Your task to perform on an android device: open app "Messages" Image 0: 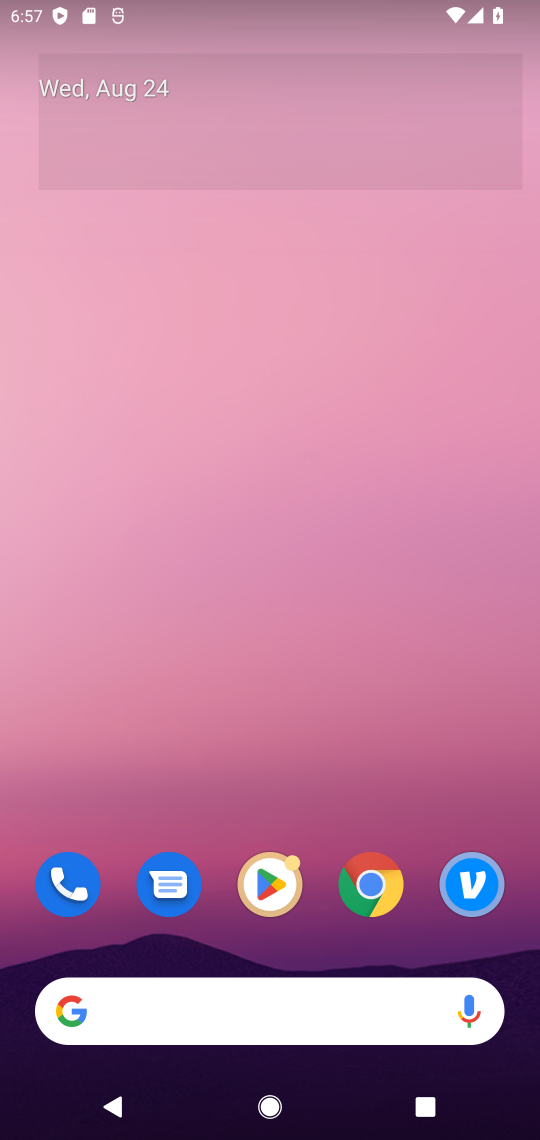
Step 0: click (264, 871)
Your task to perform on an android device: open app "Messages" Image 1: 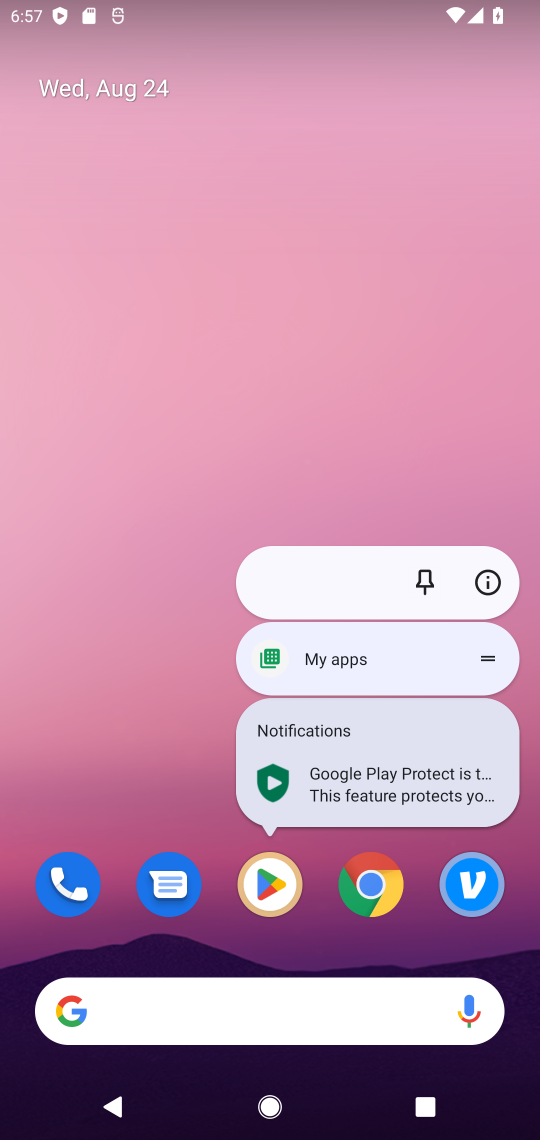
Step 1: click (278, 903)
Your task to perform on an android device: open app "Messages" Image 2: 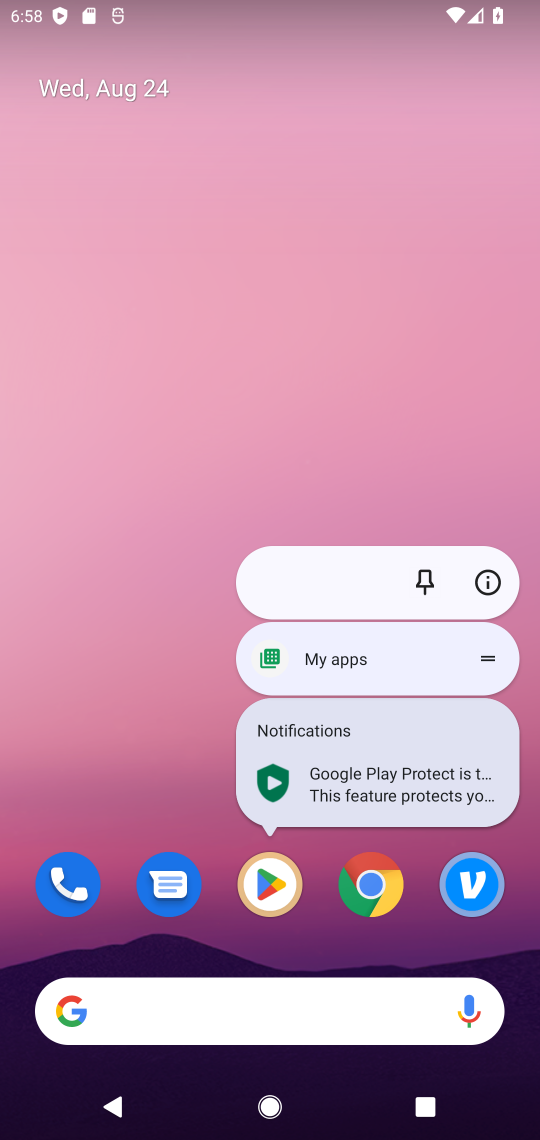
Step 2: click (274, 901)
Your task to perform on an android device: open app "Messages" Image 3: 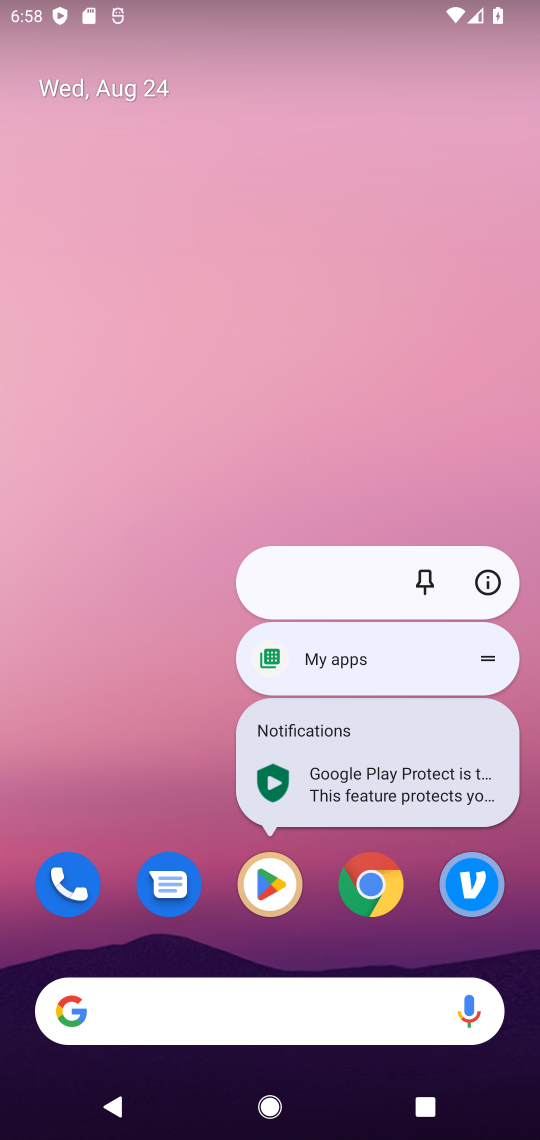
Step 3: click (261, 882)
Your task to perform on an android device: open app "Messages" Image 4: 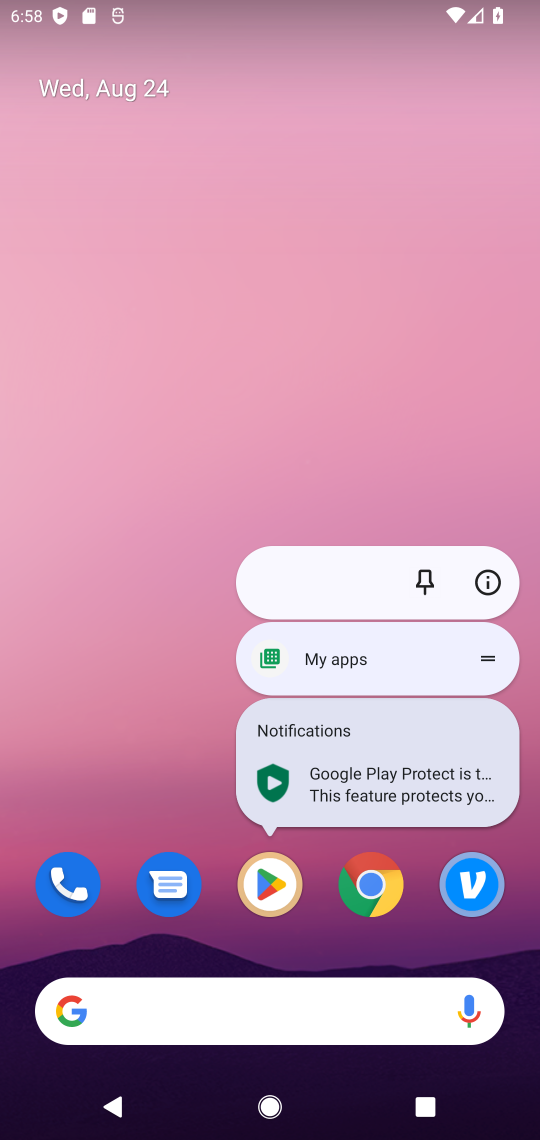
Step 4: click (261, 911)
Your task to perform on an android device: open app "Messages" Image 5: 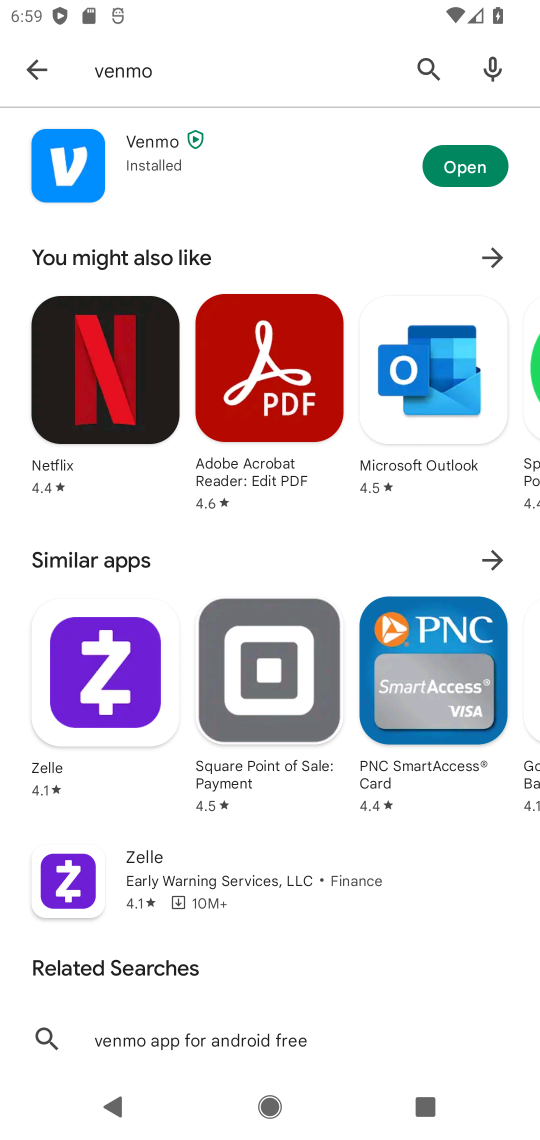
Step 5: click (424, 66)
Your task to perform on an android device: open app "Messages" Image 6: 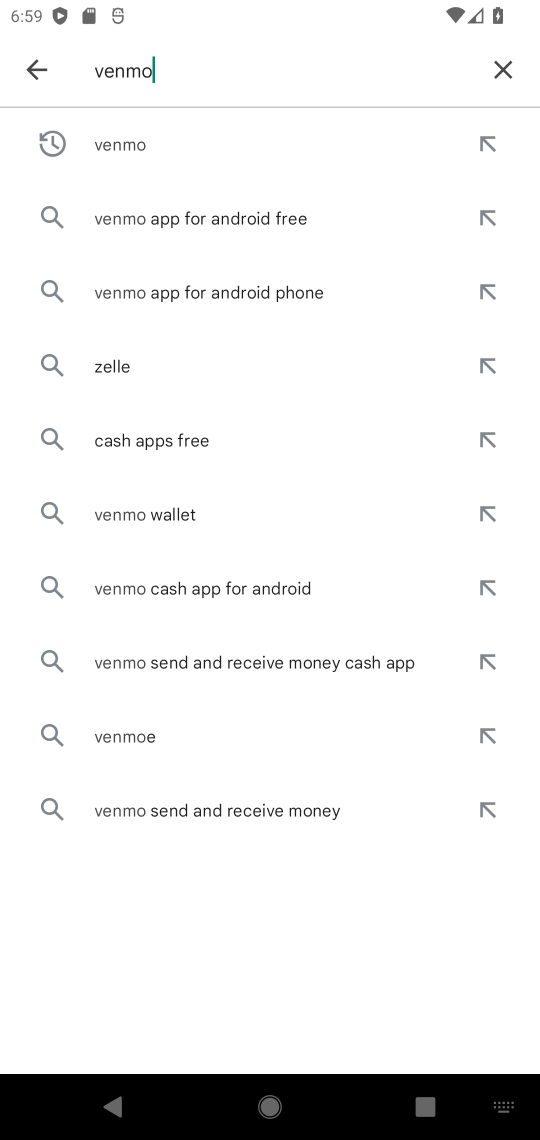
Step 6: click (492, 70)
Your task to perform on an android device: open app "Messages" Image 7: 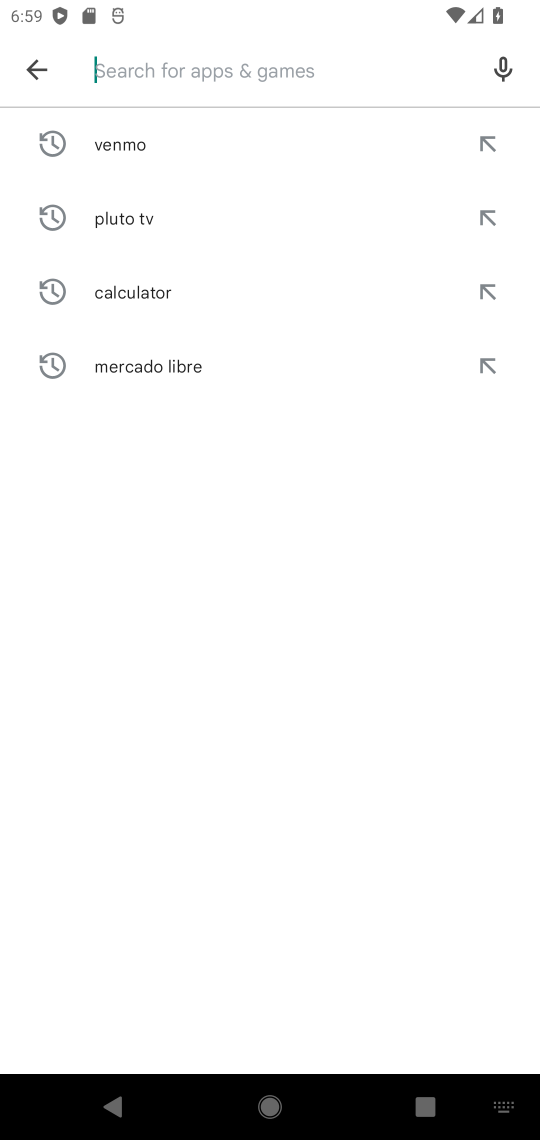
Step 7: type "messages"
Your task to perform on an android device: open app "Messages" Image 8: 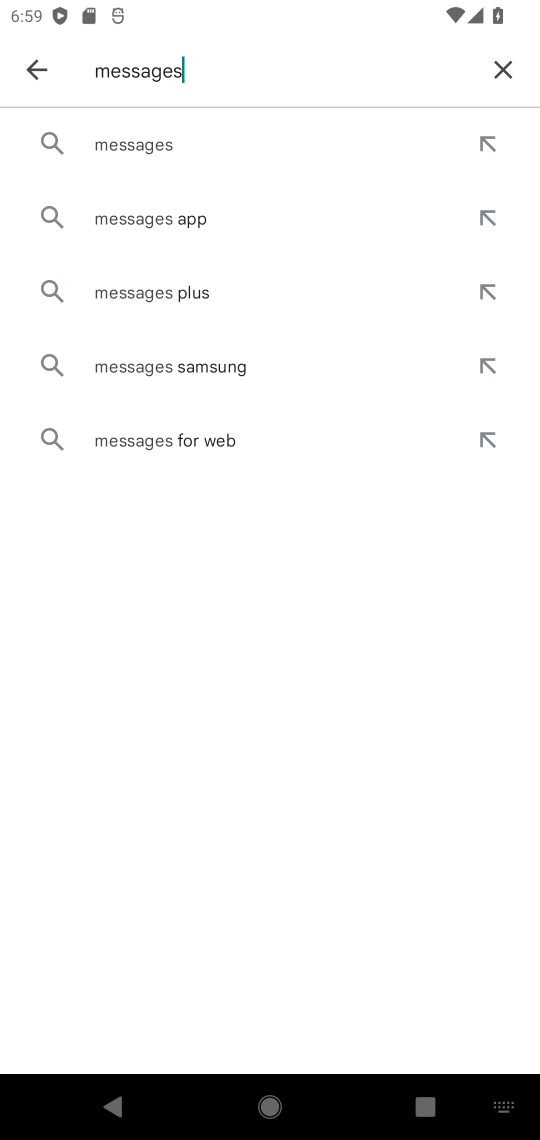
Step 8: click (185, 146)
Your task to perform on an android device: open app "Messages" Image 9: 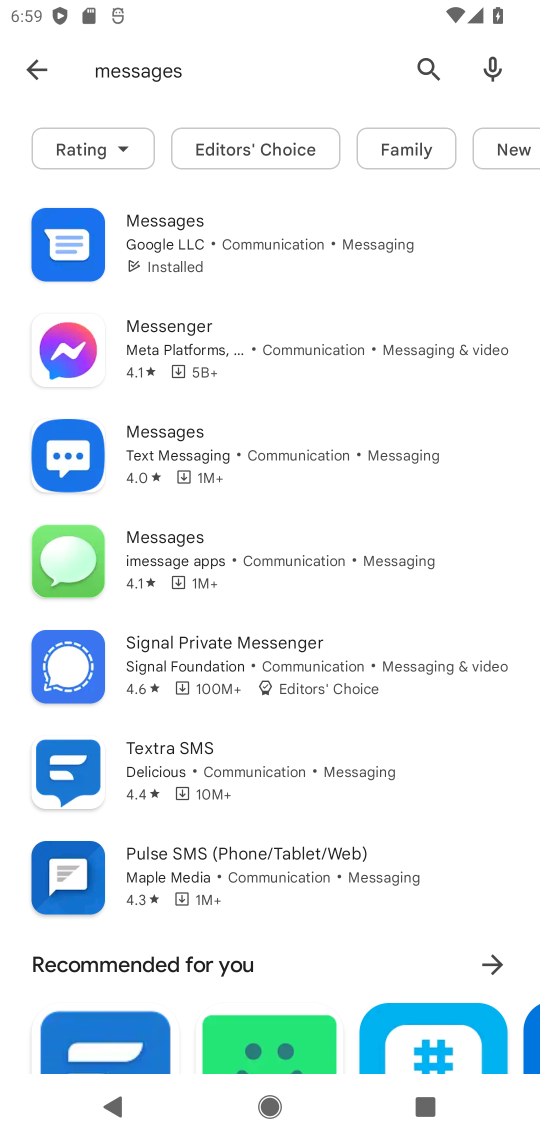
Step 9: click (315, 256)
Your task to perform on an android device: open app "Messages" Image 10: 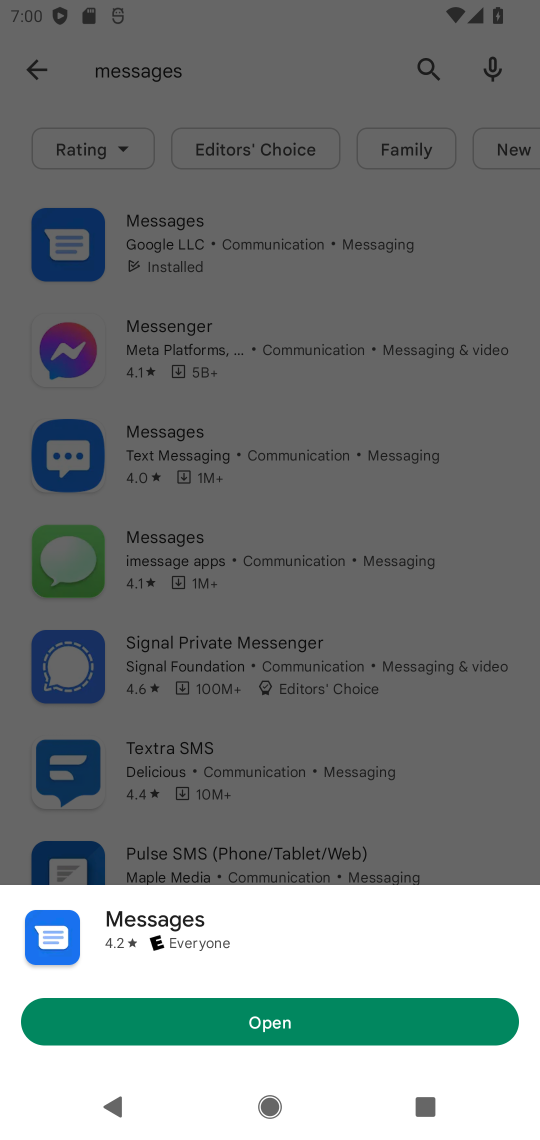
Step 10: click (296, 1037)
Your task to perform on an android device: open app "Messages" Image 11: 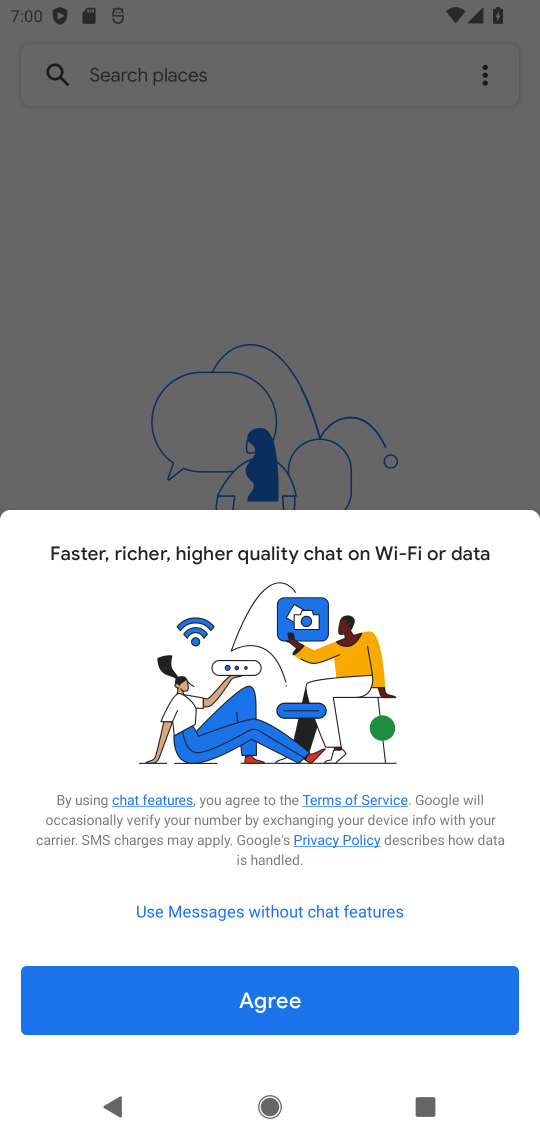
Step 11: task complete